Your task to perform on an android device: Open Chrome and go to settings Image 0: 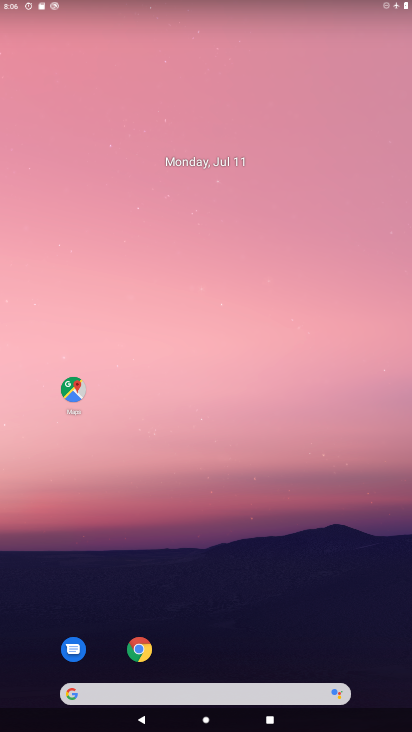
Step 0: click (139, 648)
Your task to perform on an android device: Open Chrome and go to settings Image 1: 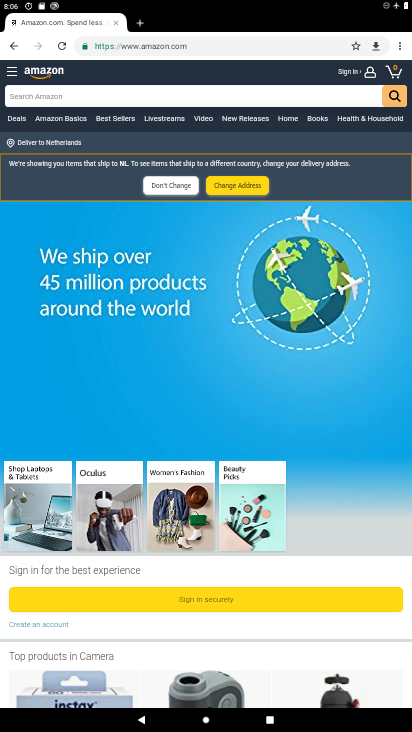
Step 1: click (400, 43)
Your task to perform on an android device: Open Chrome and go to settings Image 2: 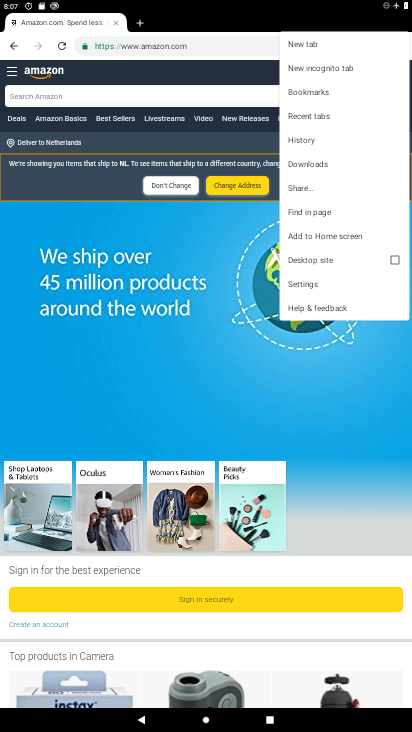
Step 2: click (309, 281)
Your task to perform on an android device: Open Chrome and go to settings Image 3: 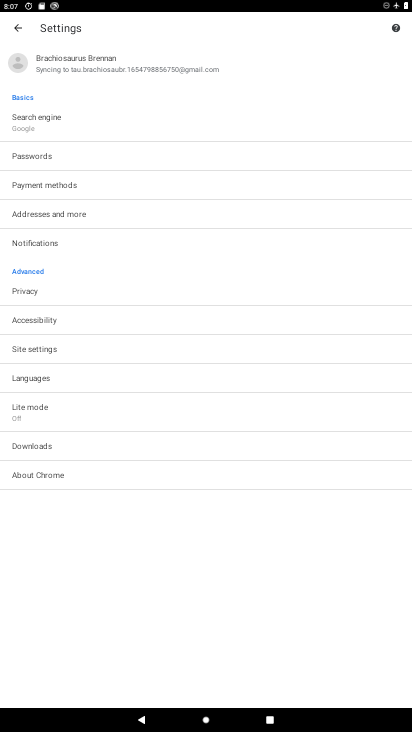
Step 3: task complete